Your task to perform on an android device: Open the calendar app, open the side menu, and click the "Day" option Image 0: 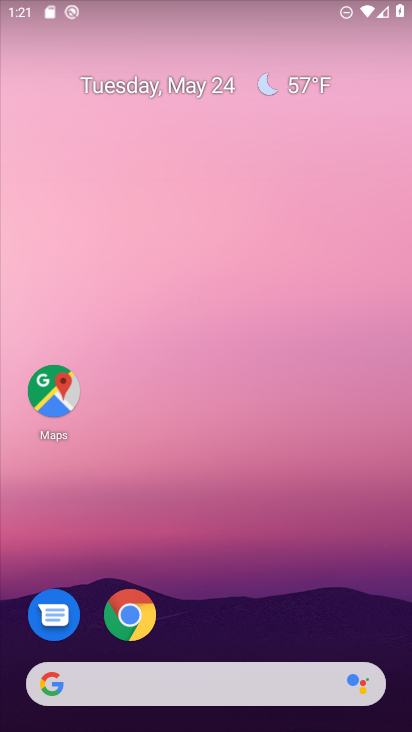
Step 0: drag from (179, 643) to (179, 170)
Your task to perform on an android device: Open the calendar app, open the side menu, and click the "Day" option Image 1: 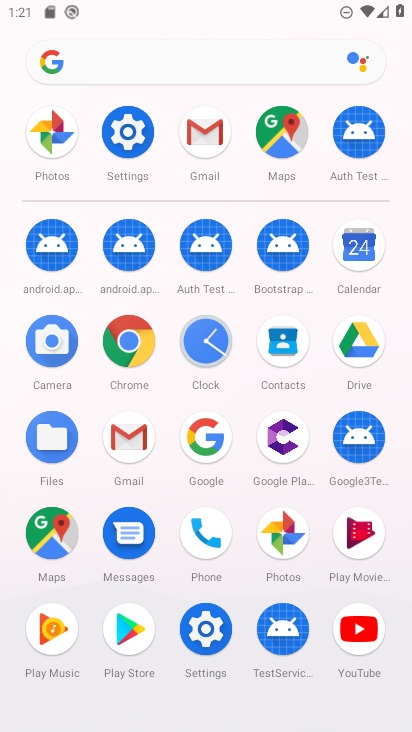
Step 1: click (354, 251)
Your task to perform on an android device: Open the calendar app, open the side menu, and click the "Day" option Image 2: 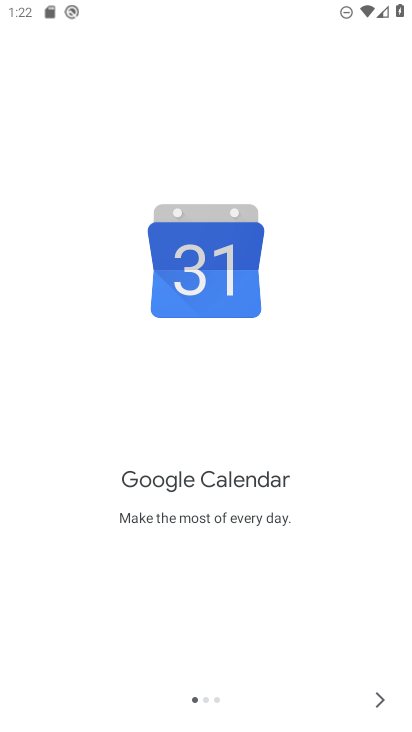
Step 2: click (383, 692)
Your task to perform on an android device: Open the calendar app, open the side menu, and click the "Day" option Image 3: 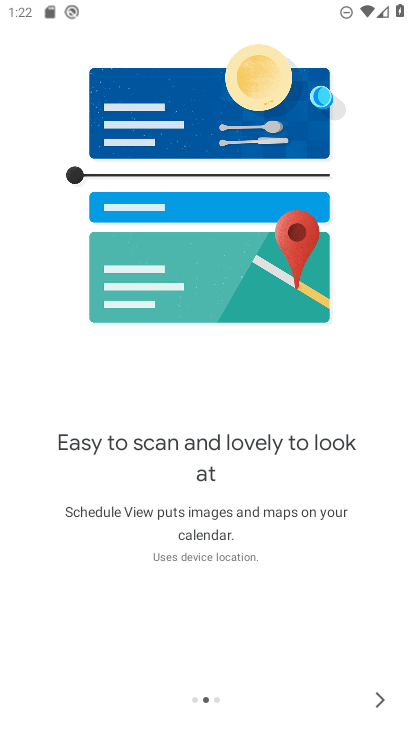
Step 3: click (383, 692)
Your task to perform on an android device: Open the calendar app, open the side menu, and click the "Day" option Image 4: 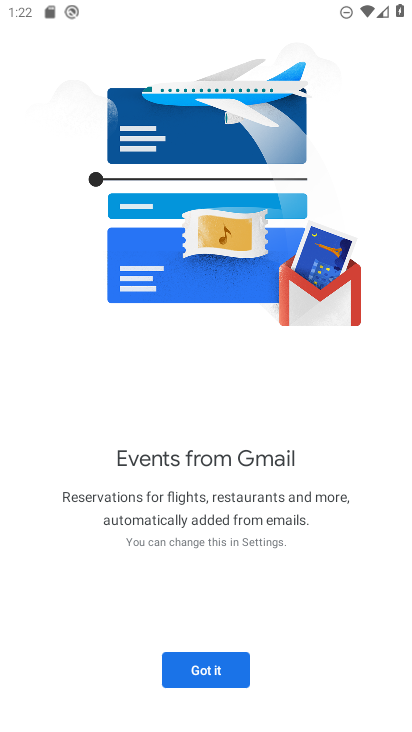
Step 4: click (215, 681)
Your task to perform on an android device: Open the calendar app, open the side menu, and click the "Day" option Image 5: 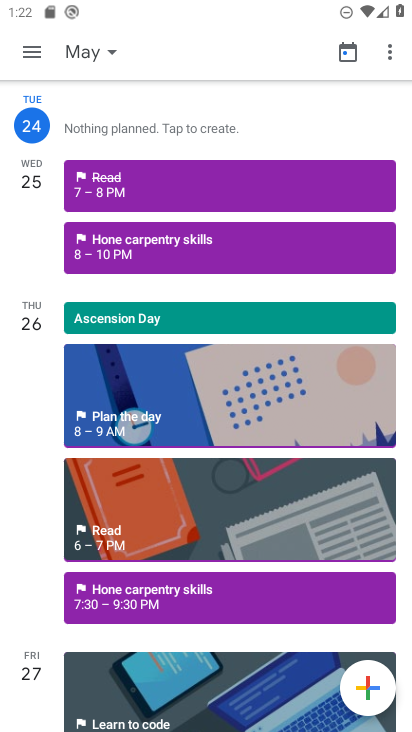
Step 5: click (109, 49)
Your task to perform on an android device: Open the calendar app, open the side menu, and click the "Day" option Image 6: 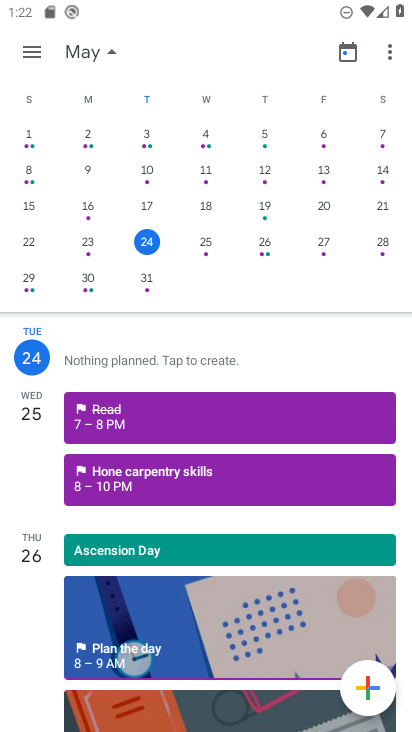
Step 6: click (23, 48)
Your task to perform on an android device: Open the calendar app, open the side menu, and click the "Day" option Image 7: 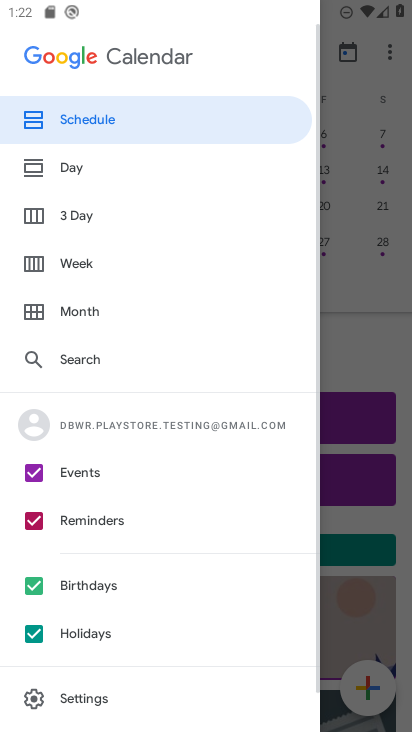
Step 7: click (95, 184)
Your task to perform on an android device: Open the calendar app, open the side menu, and click the "Day" option Image 8: 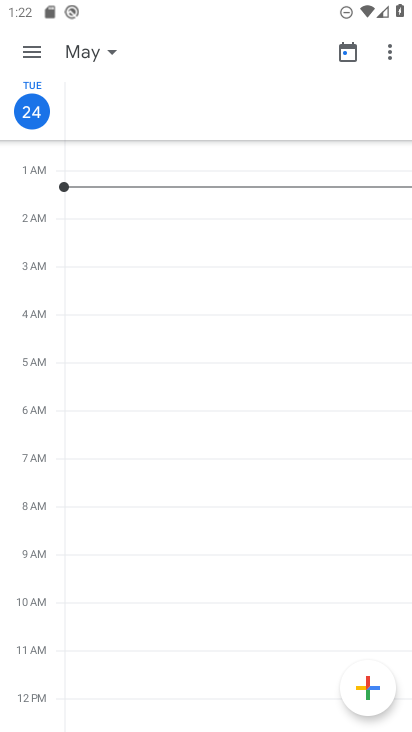
Step 8: task complete